Your task to perform on an android device: Open Chrome and go to settings Image 0: 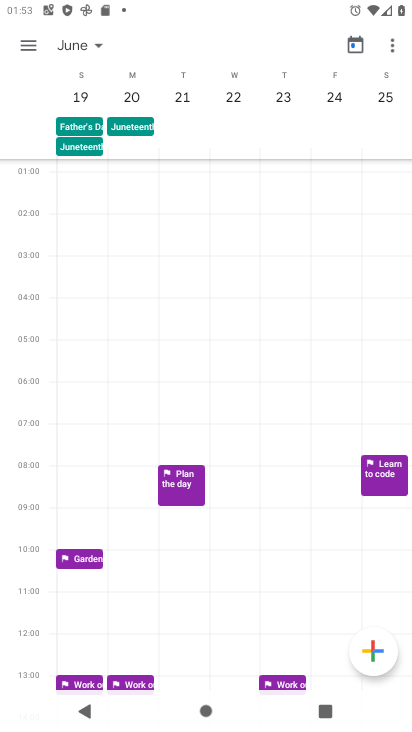
Step 0: press home button
Your task to perform on an android device: Open Chrome and go to settings Image 1: 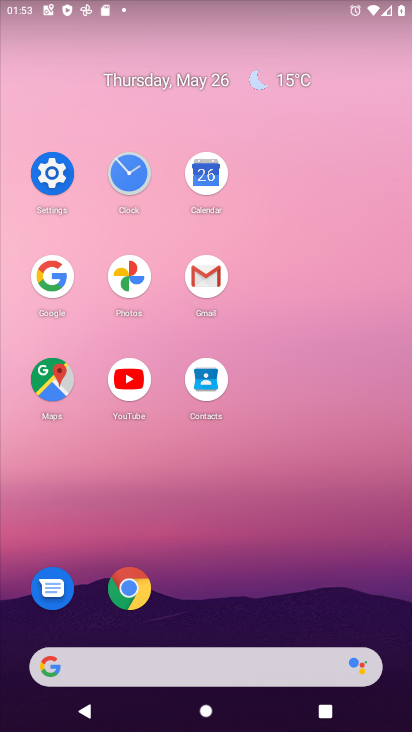
Step 1: click (118, 580)
Your task to perform on an android device: Open Chrome and go to settings Image 2: 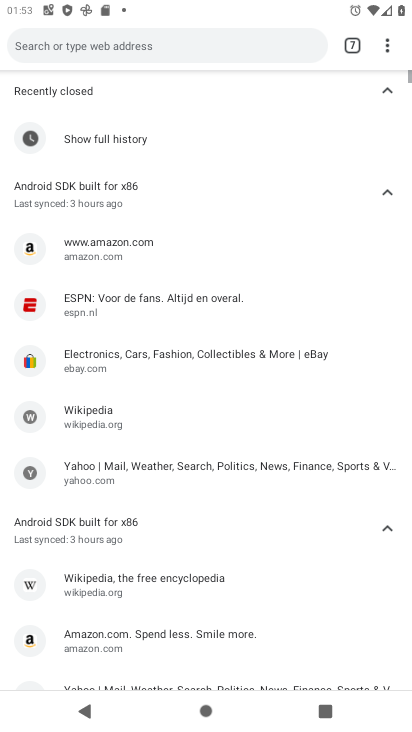
Step 2: click (384, 49)
Your task to perform on an android device: Open Chrome and go to settings Image 3: 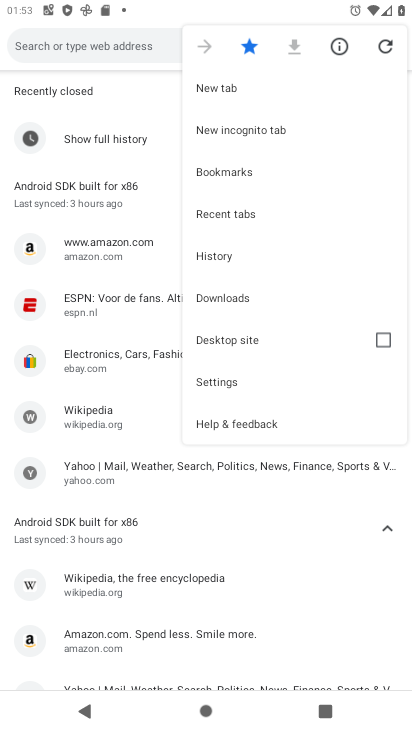
Step 3: click (226, 377)
Your task to perform on an android device: Open Chrome and go to settings Image 4: 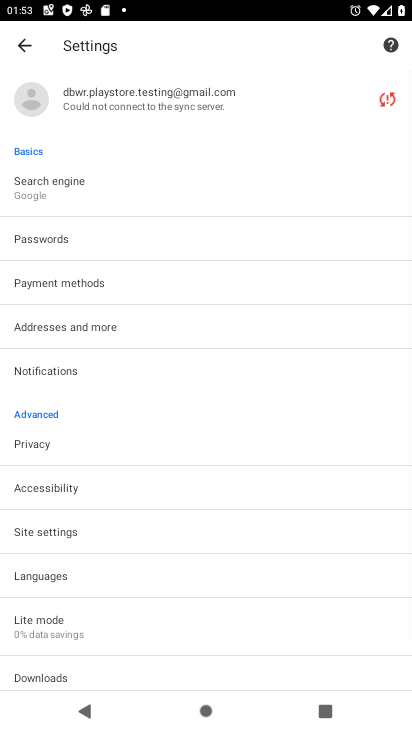
Step 4: task complete